Your task to perform on an android device: Go to display settings Image 0: 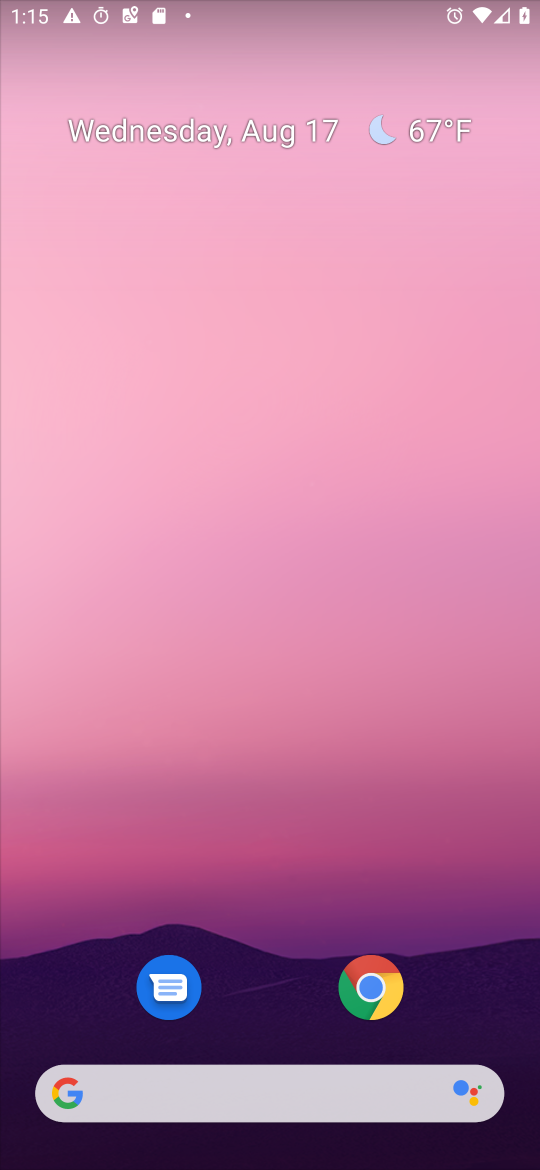
Step 0: drag from (19, 1129) to (359, 552)
Your task to perform on an android device: Go to display settings Image 1: 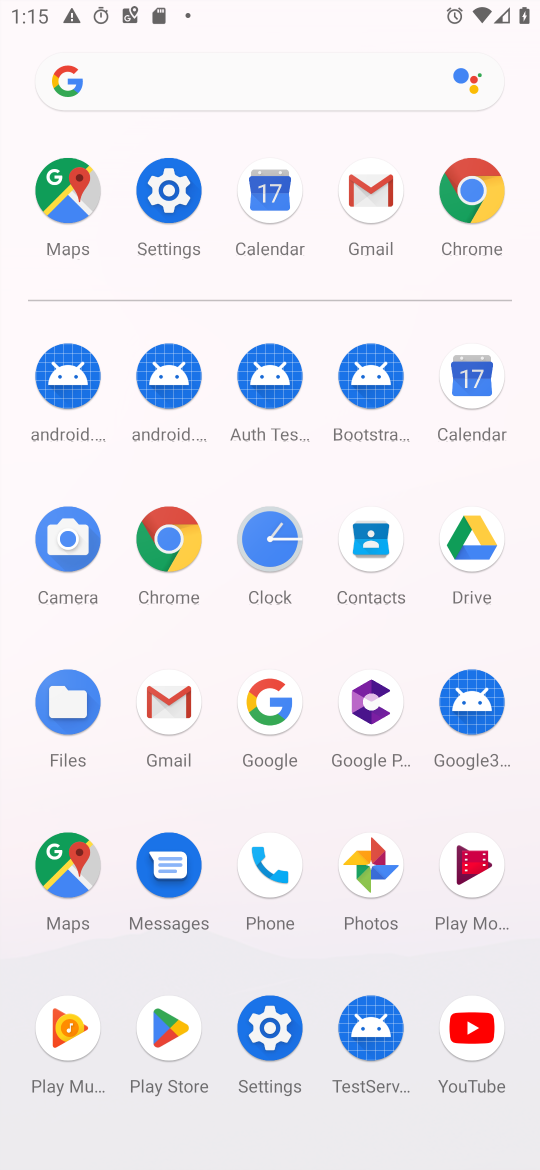
Step 1: click (257, 1035)
Your task to perform on an android device: Go to display settings Image 2: 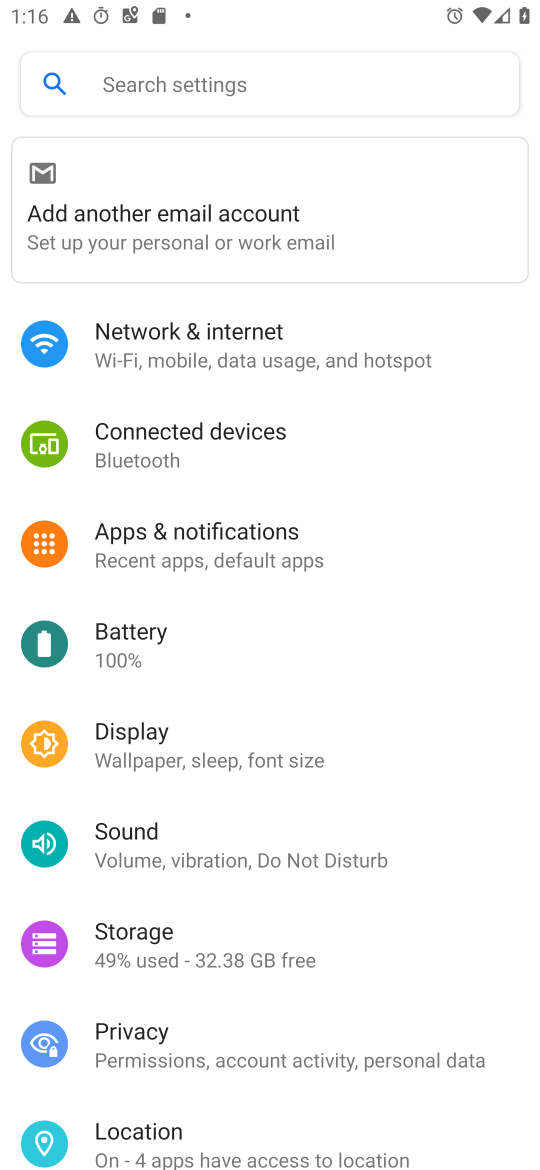
Step 2: click (163, 739)
Your task to perform on an android device: Go to display settings Image 3: 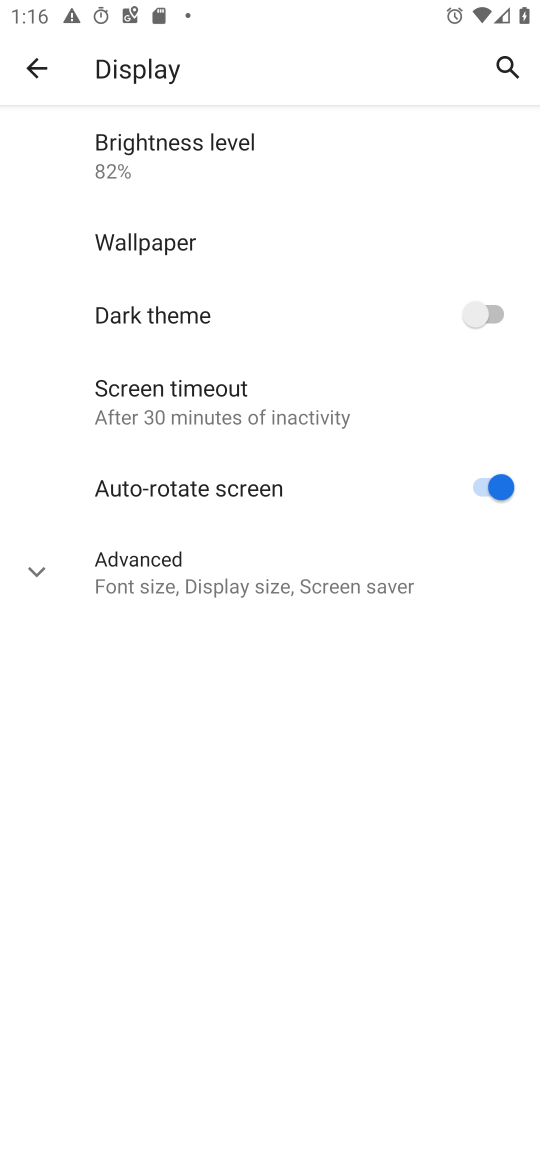
Step 3: task complete